Your task to perform on an android device: Show me productivity apps on the Play Store Image 0: 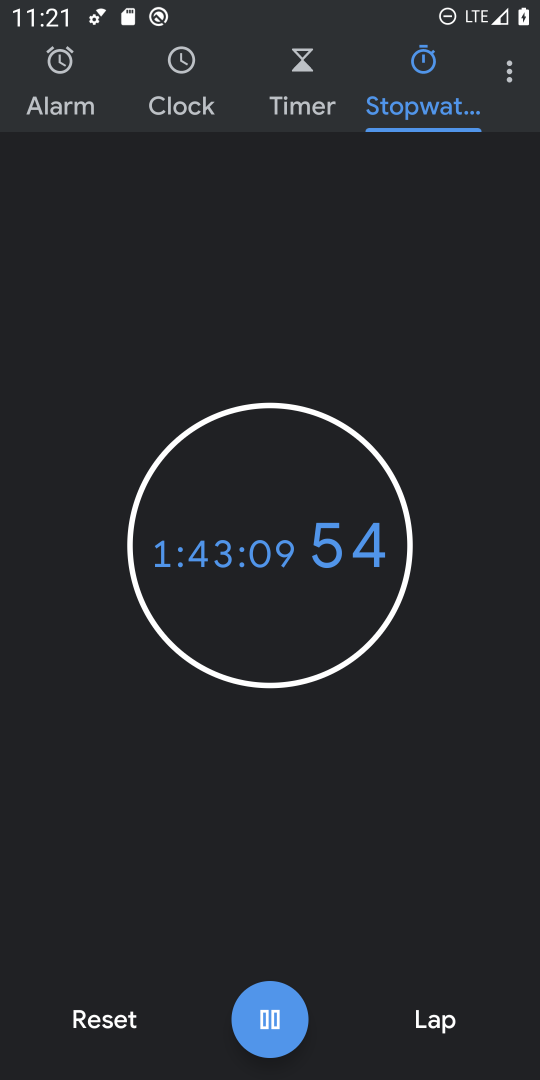
Step 0: press home button
Your task to perform on an android device: Show me productivity apps on the Play Store Image 1: 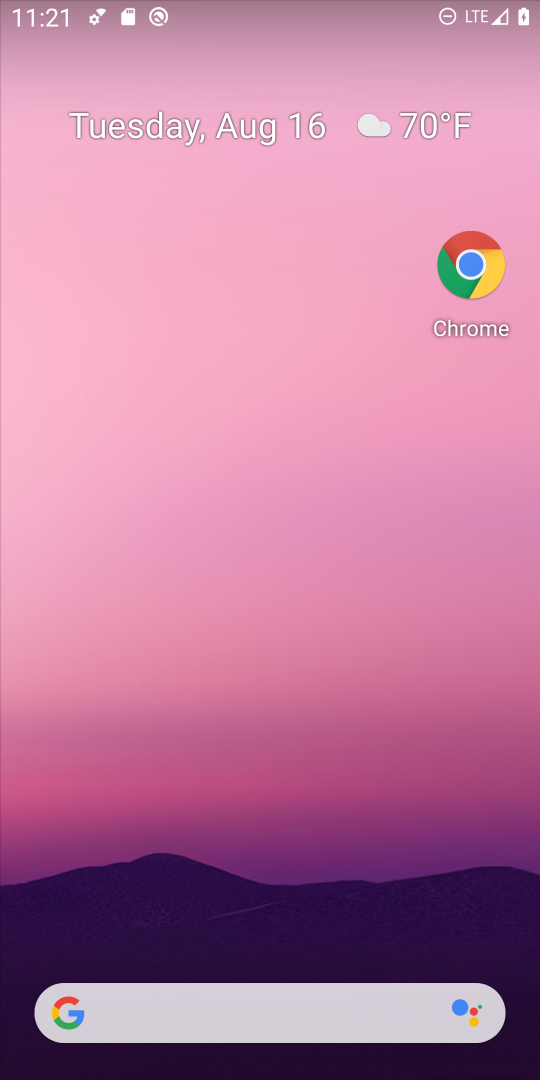
Step 1: drag from (395, 922) to (395, 175)
Your task to perform on an android device: Show me productivity apps on the Play Store Image 2: 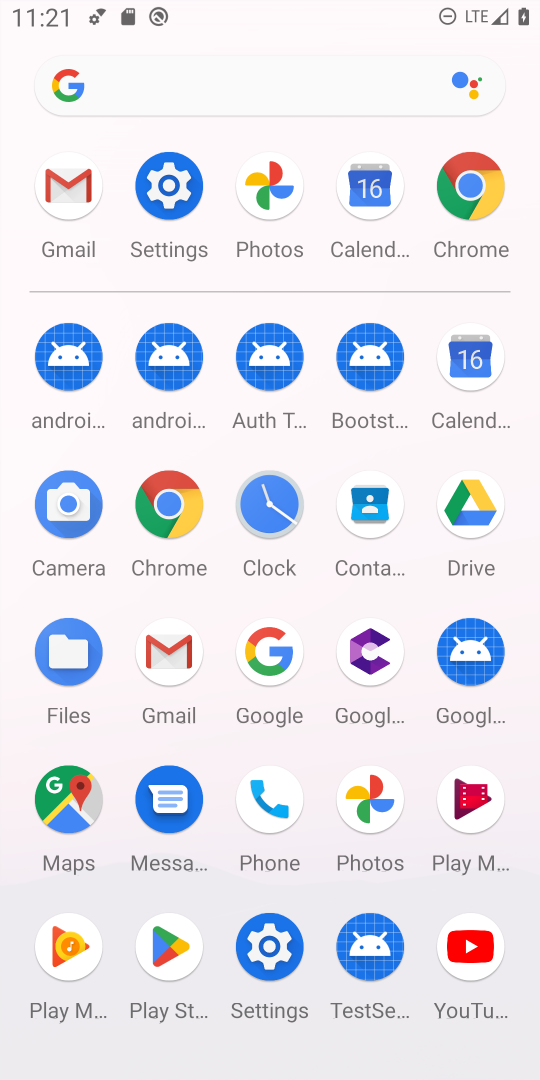
Step 2: click (164, 980)
Your task to perform on an android device: Show me productivity apps on the Play Store Image 3: 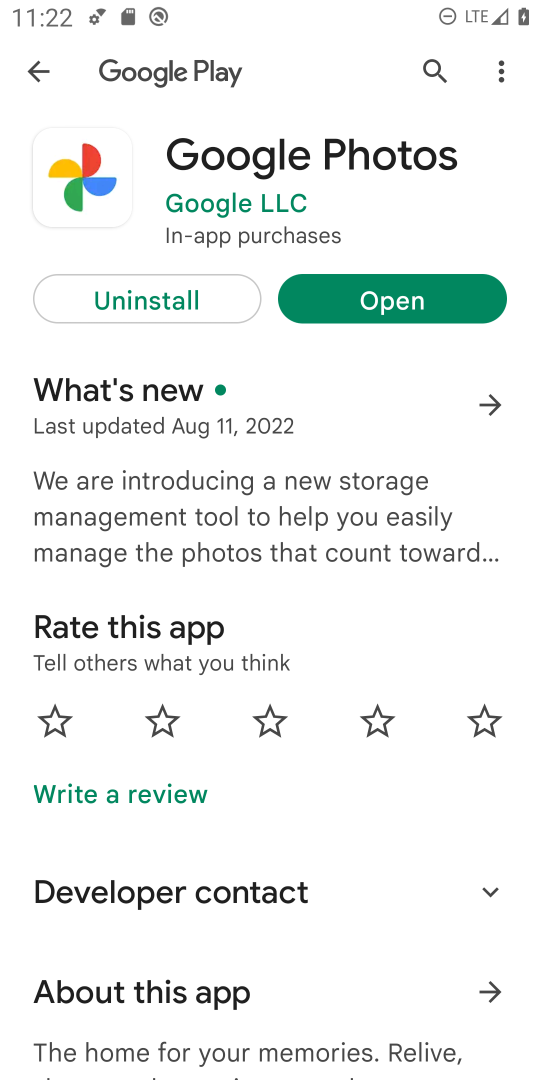
Step 3: click (45, 74)
Your task to perform on an android device: Show me productivity apps on the Play Store Image 4: 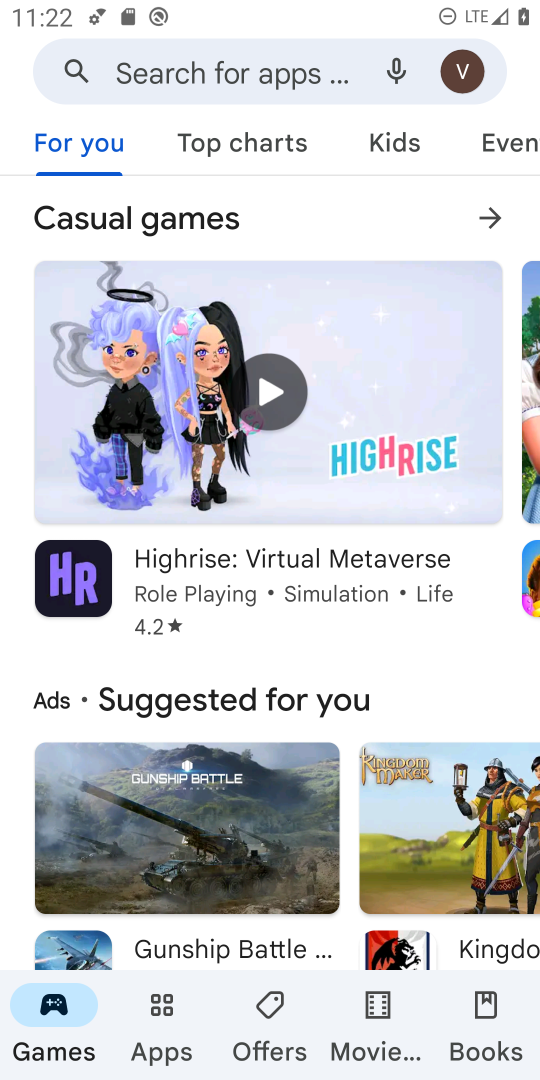
Step 4: click (237, 83)
Your task to perform on an android device: Show me productivity apps on the Play Store Image 5: 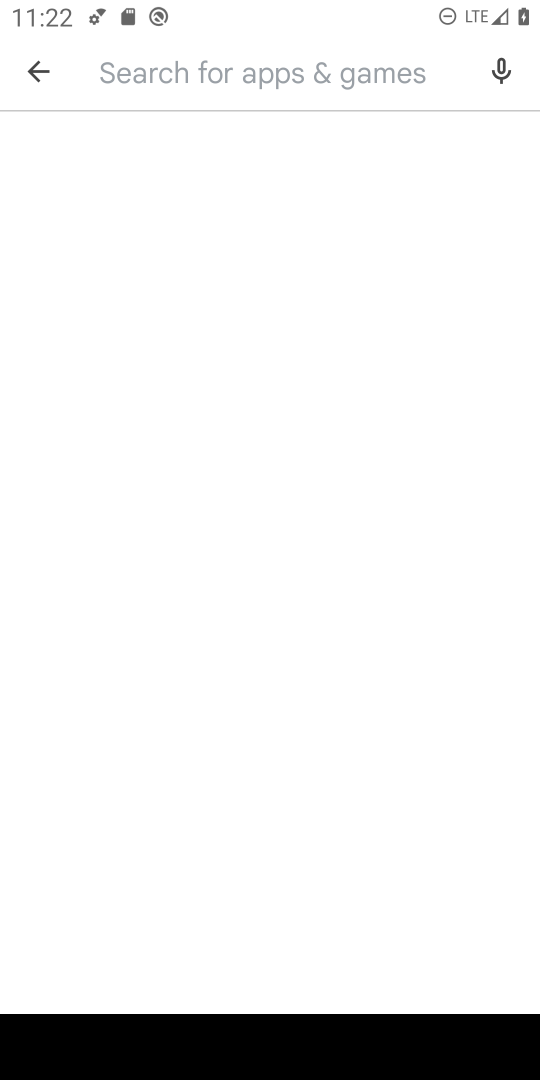
Step 5: type "productivity apps"
Your task to perform on an android device: Show me productivity apps on the Play Store Image 6: 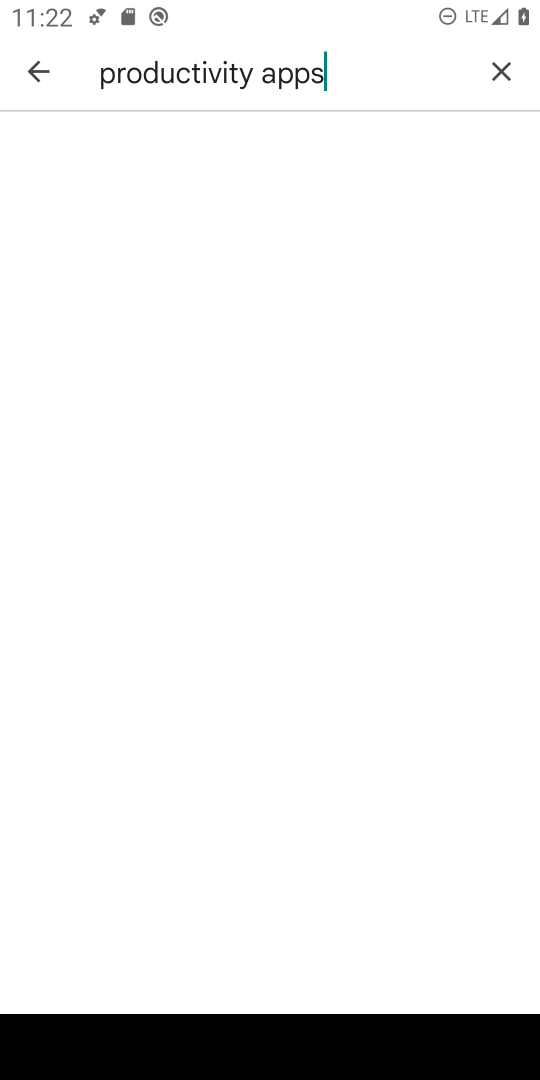
Step 6: type ""
Your task to perform on an android device: Show me productivity apps on the Play Store Image 7: 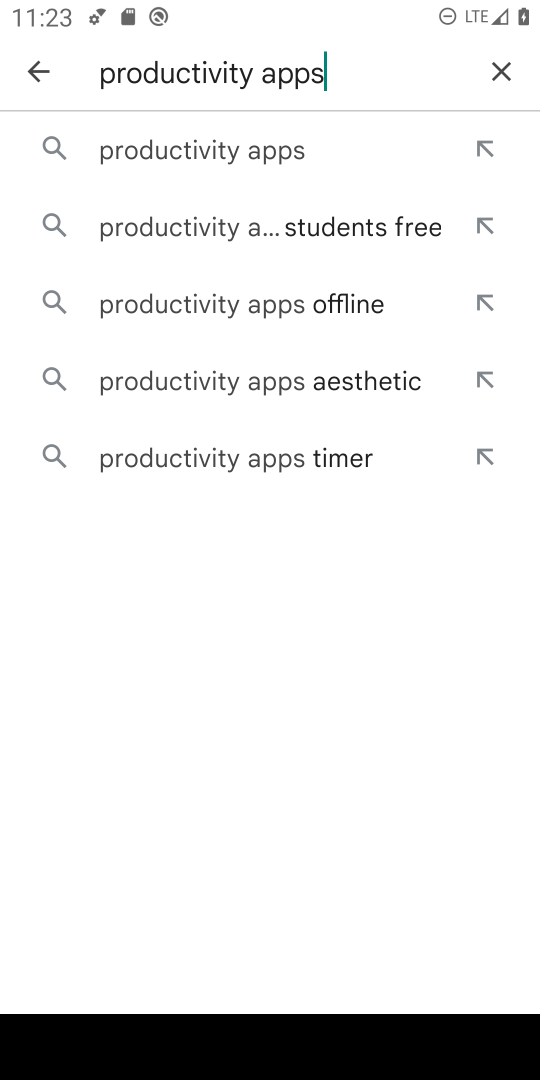
Step 7: click (215, 162)
Your task to perform on an android device: Show me productivity apps on the Play Store Image 8: 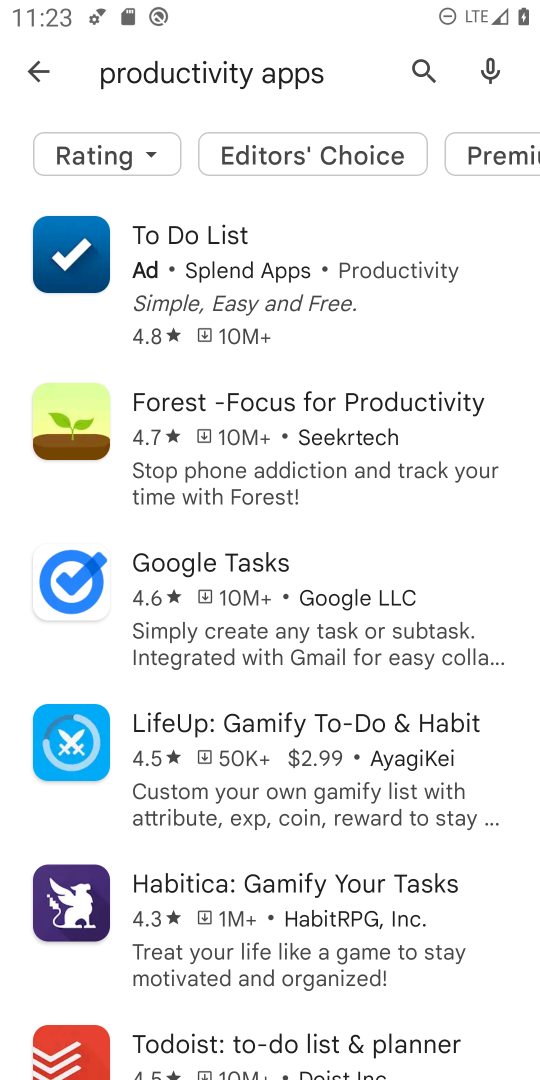
Step 8: task complete